Your task to perform on an android device: Open Youtube and go to "Your channel" Image 0: 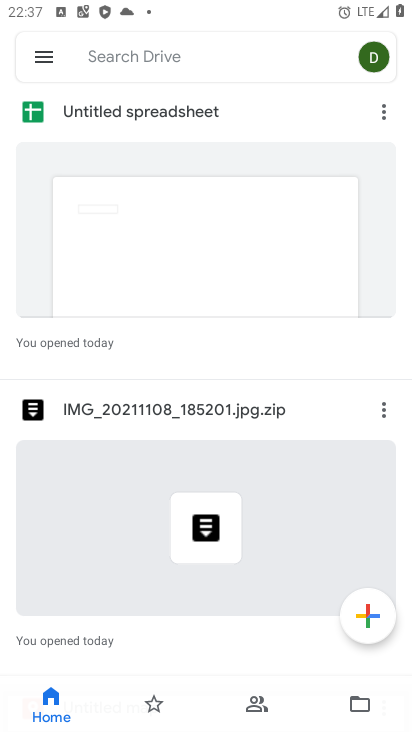
Step 0: press home button
Your task to perform on an android device: Open Youtube and go to "Your channel" Image 1: 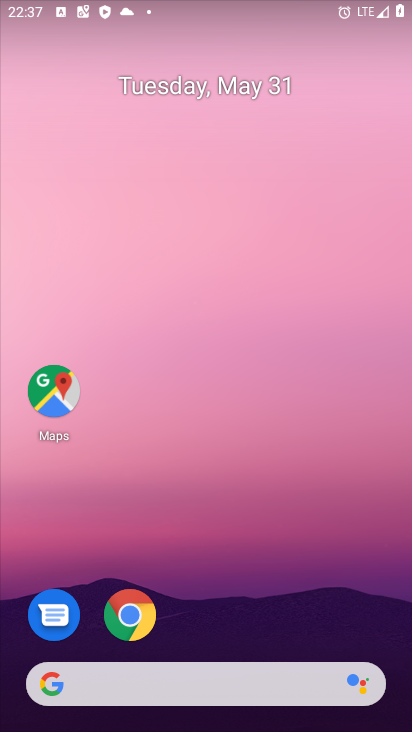
Step 1: drag from (396, 632) to (355, 142)
Your task to perform on an android device: Open Youtube and go to "Your channel" Image 2: 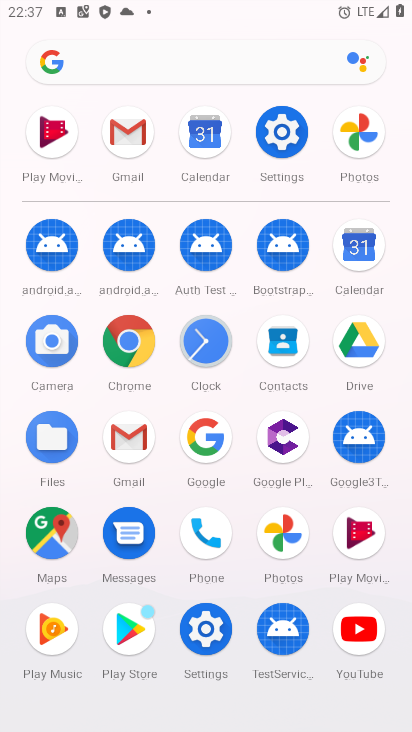
Step 2: click (360, 630)
Your task to perform on an android device: Open Youtube and go to "Your channel" Image 3: 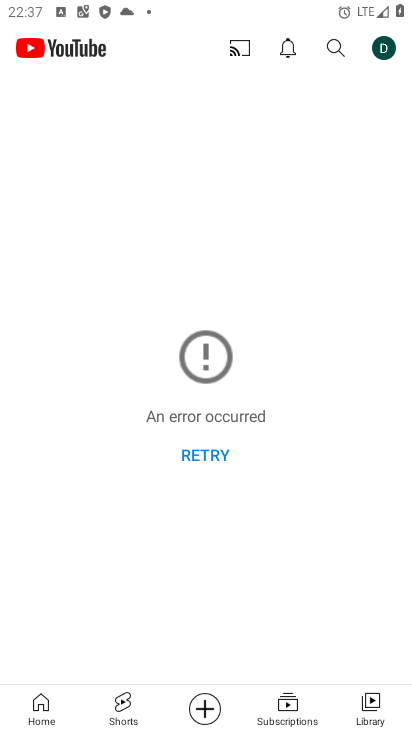
Step 3: click (380, 51)
Your task to perform on an android device: Open Youtube and go to "Your channel" Image 4: 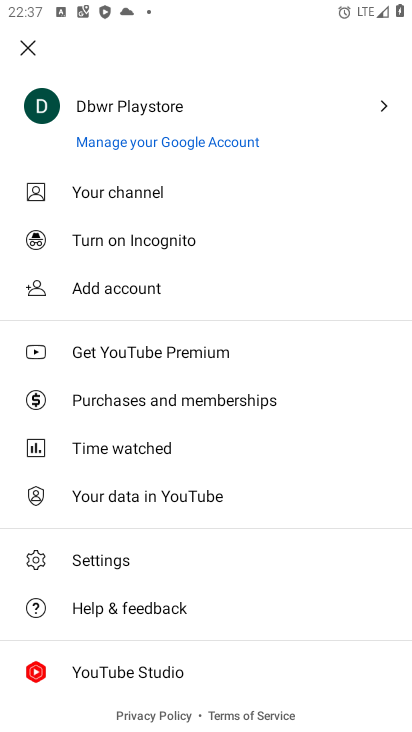
Step 4: click (113, 195)
Your task to perform on an android device: Open Youtube and go to "Your channel" Image 5: 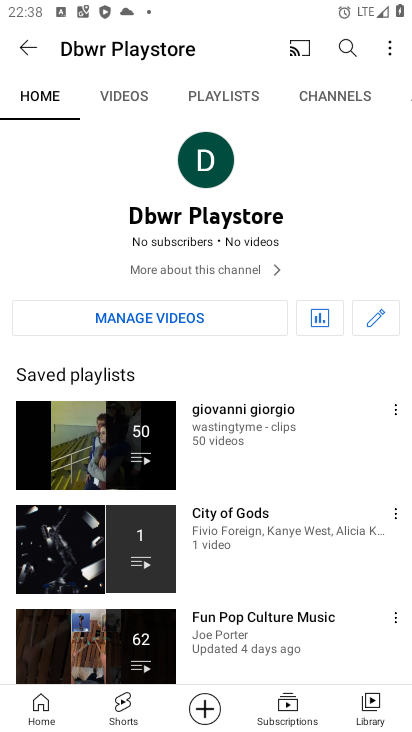
Step 5: task complete